Your task to perform on an android device: open chrome privacy settings Image 0: 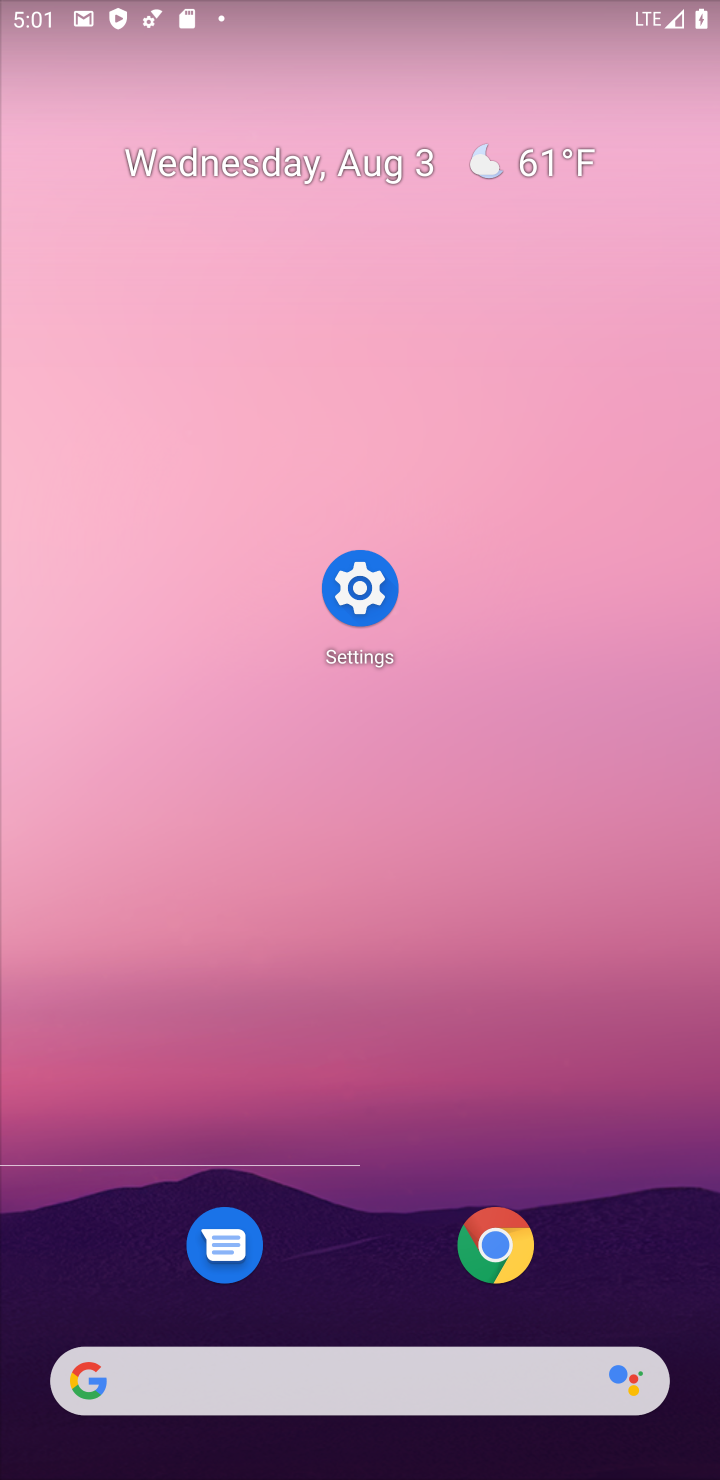
Step 0: click (502, 1241)
Your task to perform on an android device: open chrome privacy settings Image 1: 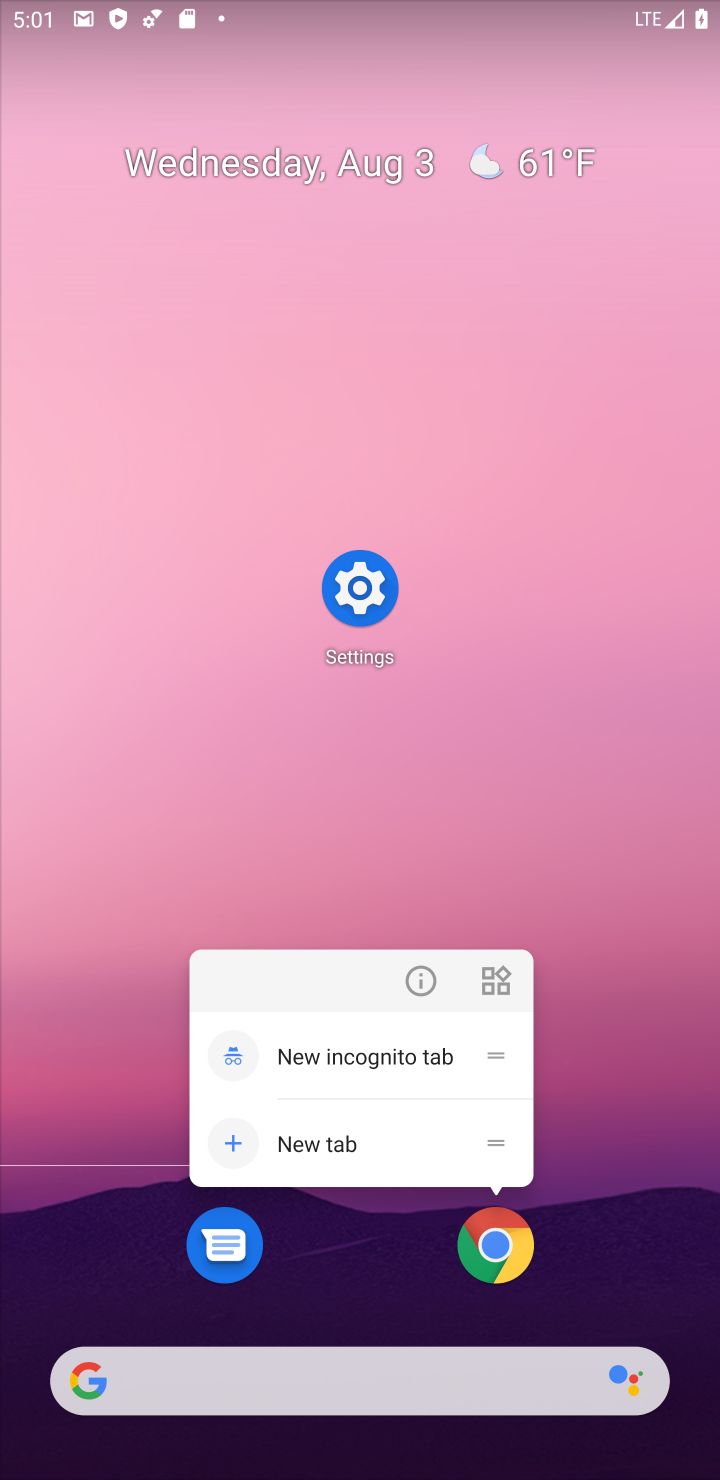
Step 1: click (522, 1262)
Your task to perform on an android device: open chrome privacy settings Image 2: 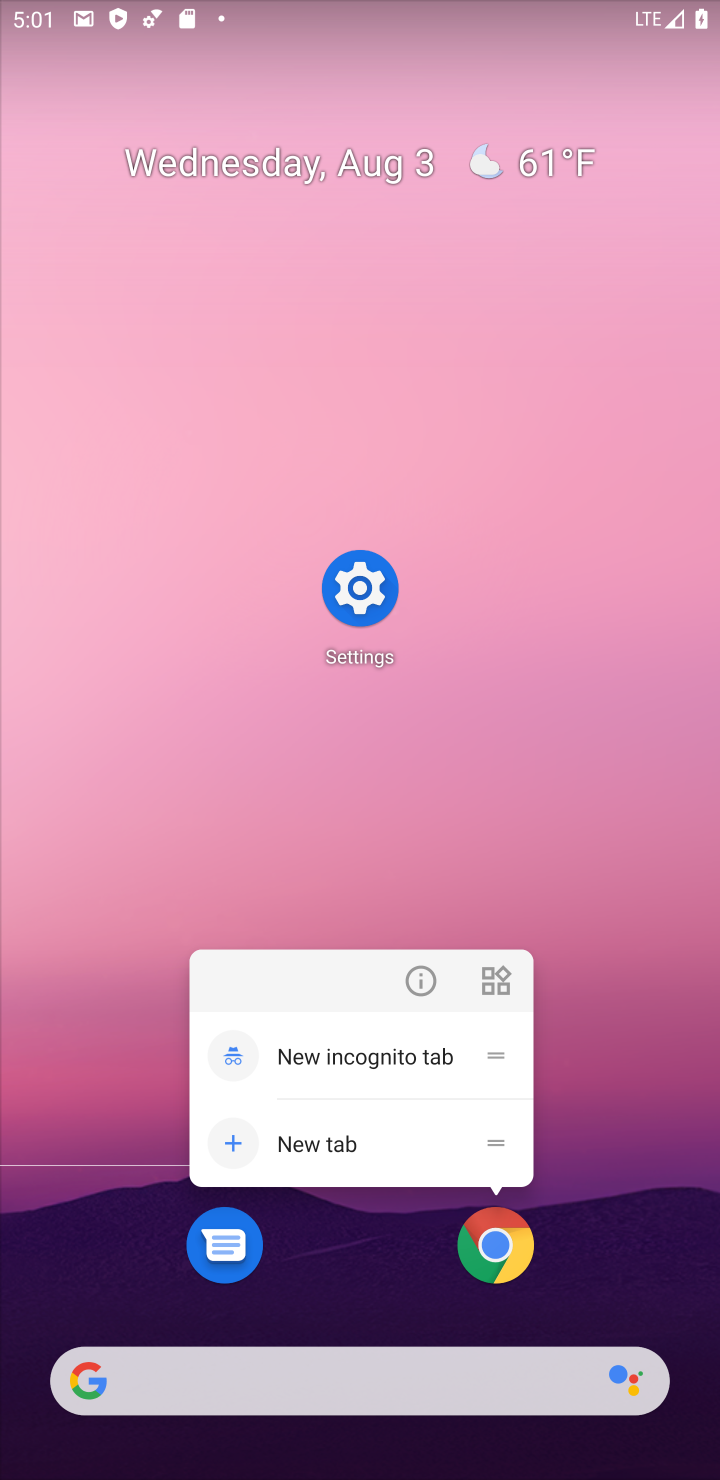
Step 2: click (464, 1271)
Your task to perform on an android device: open chrome privacy settings Image 3: 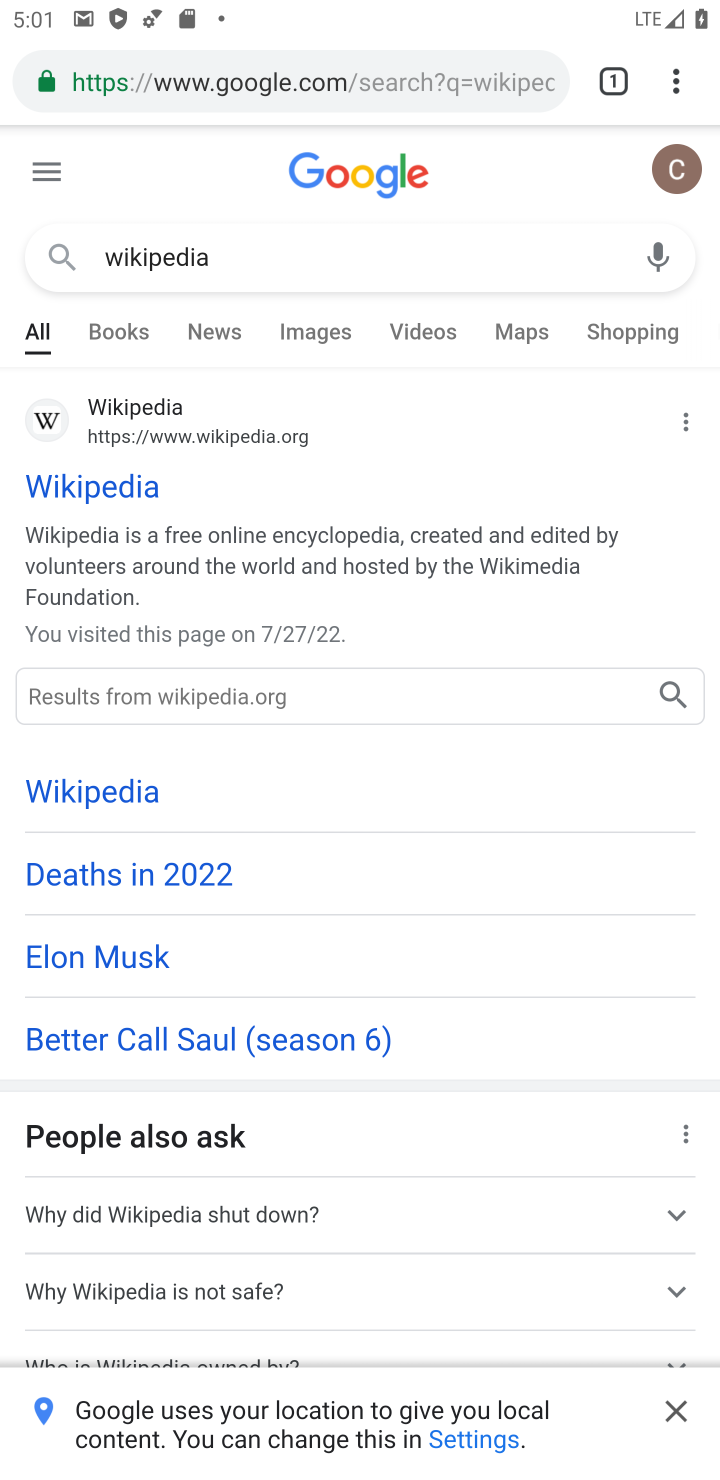
Step 3: drag from (687, 93) to (457, 897)
Your task to perform on an android device: open chrome privacy settings Image 4: 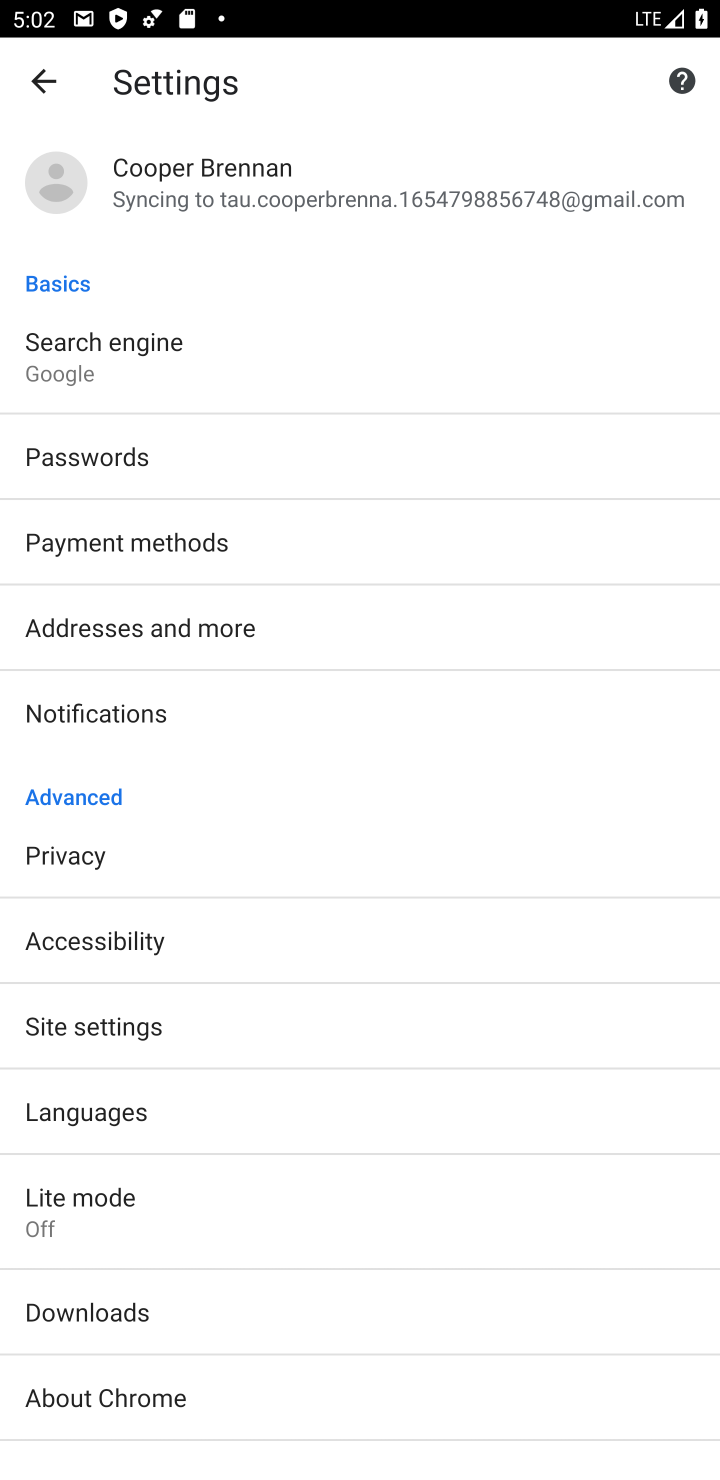
Step 4: click (92, 845)
Your task to perform on an android device: open chrome privacy settings Image 5: 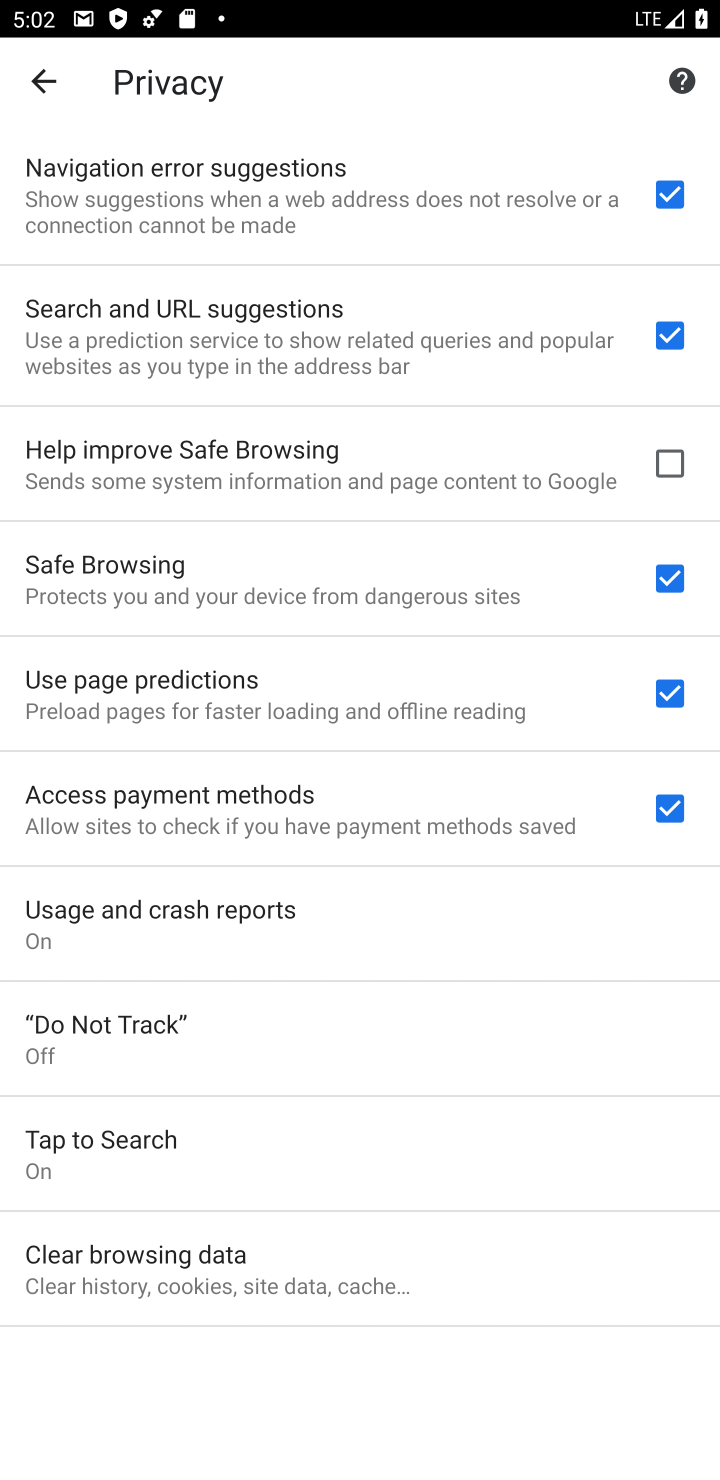
Step 5: task complete